Your task to perform on an android device: Search for vegetarian restaurants on Maps Image 0: 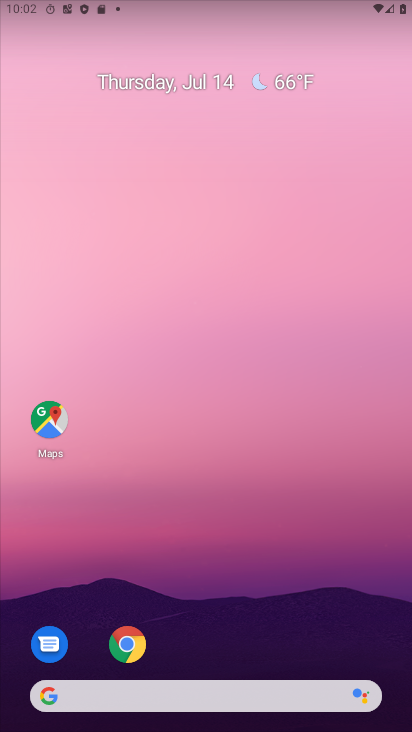
Step 0: drag from (239, 493) to (192, 165)
Your task to perform on an android device: Search for vegetarian restaurants on Maps Image 1: 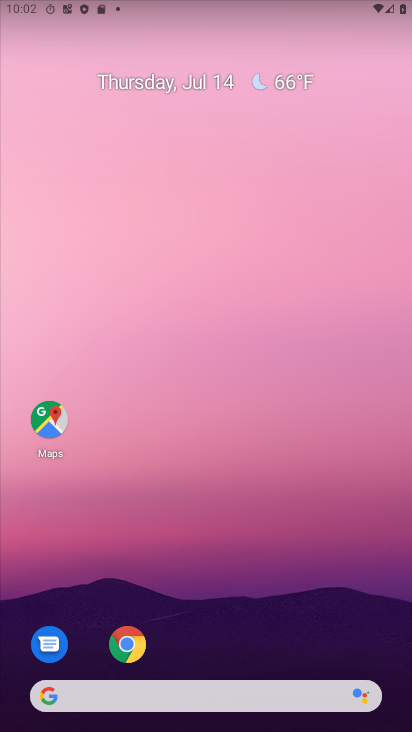
Step 1: drag from (222, 507) to (144, 15)
Your task to perform on an android device: Search for vegetarian restaurants on Maps Image 2: 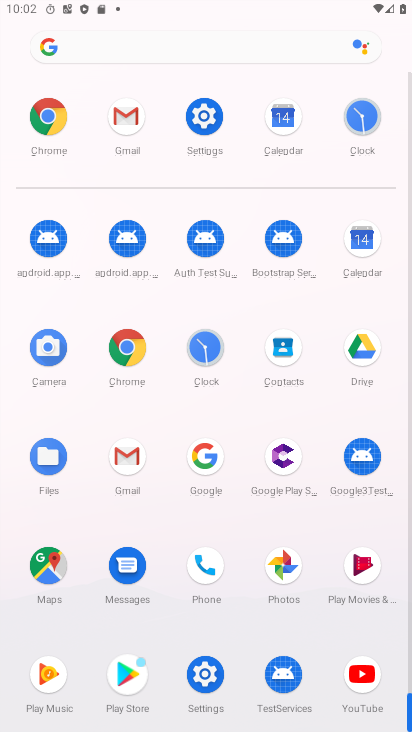
Step 2: click (45, 572)
Your task to perform on an android device: Search for vegetarian restaurants on Maps Image 3: 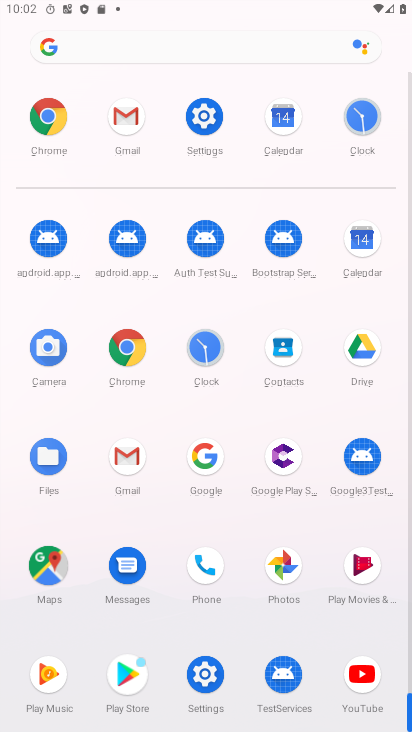
Step 3: click (50, 585)
Your task to perform on an android device: Search for vegetarian restaurants on Maps Image 4: 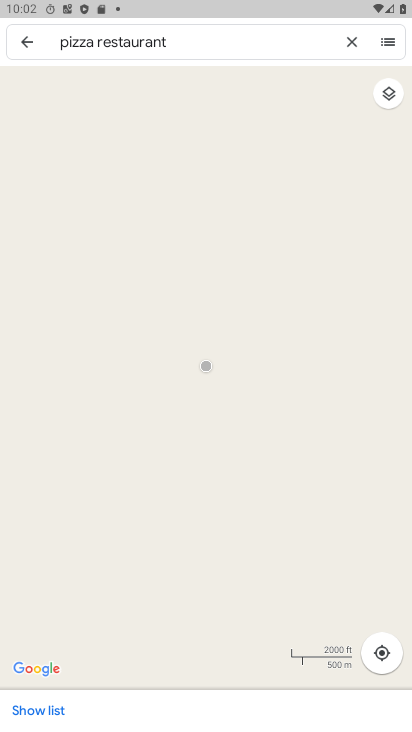
Step 4: click (351, 43)
Your task to perform on an android device: Search for vegetarian restaurants on Maps Image 5: 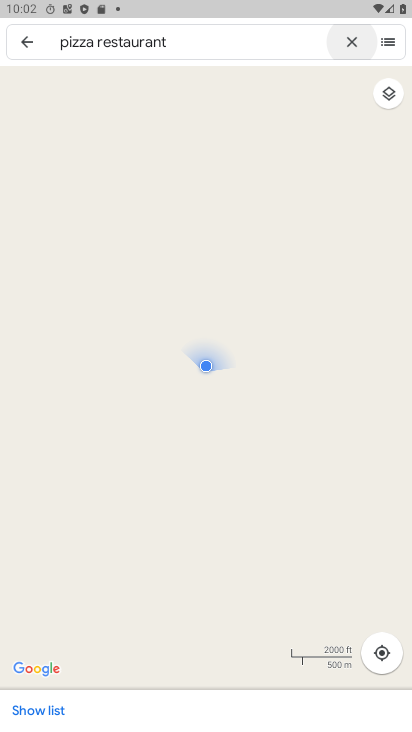
Step 5: click (351, 43)
Your task to perform on an android device: Search for vegetarian restaurants on Maps Image 6: 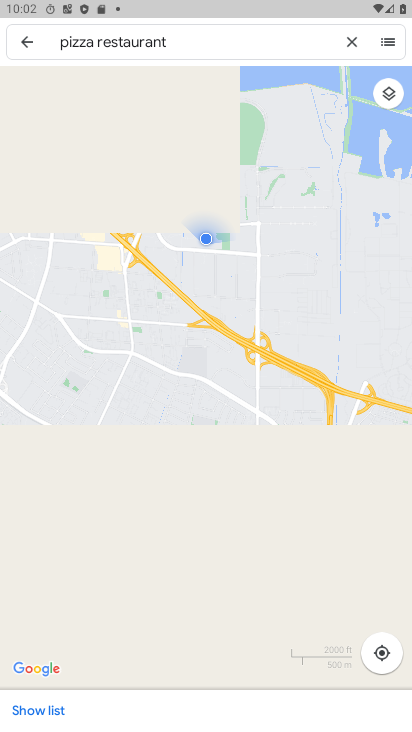
Step 6: click (350, 46)
Your task to perform on an android device: Search for vegetarian restaurants on Maps Image 7: 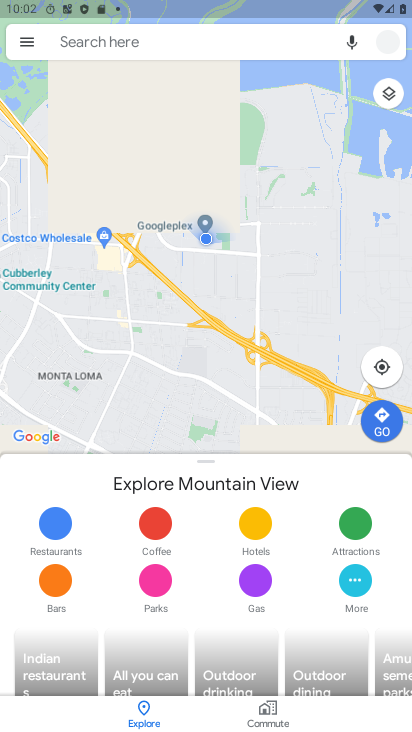
Step 7: click (115, 41)
Your task to perform on an android device: Search for vegetarian restaurants on Maps Image 8: 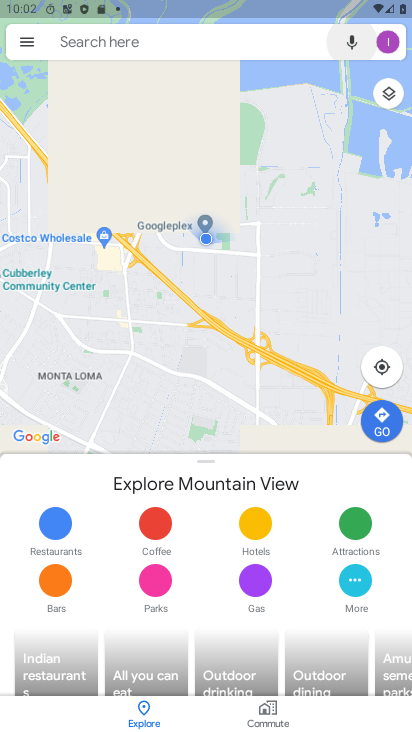
Step 8: click (112, 41)
Your task to perform on an android device: Search for vegetarian restaurants on Maps Image 9: 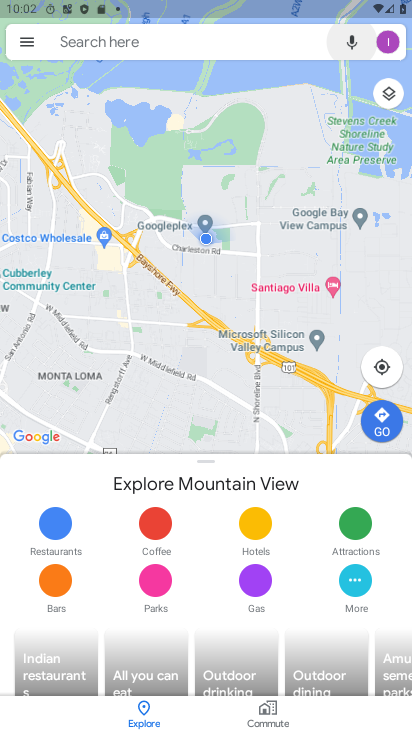
Step 9: click (110, 42)
Your task to perform on an android device: Search for vegetarian restaurants on Maps Image 10: 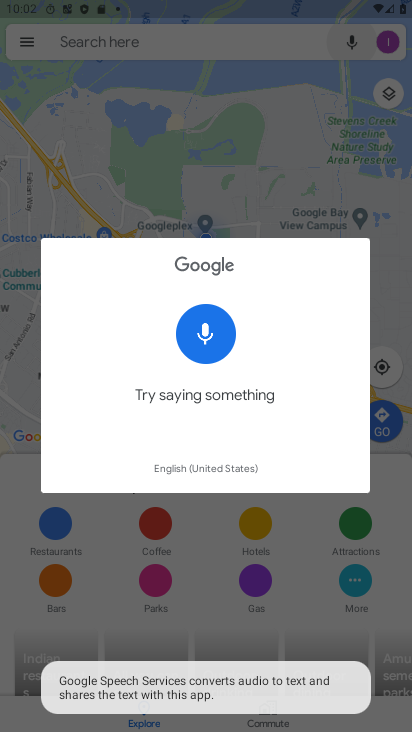
Step 10: click (141, 40)
Your task to perform on an android device: Search for vegetarian restaurants on Maps Image 11: 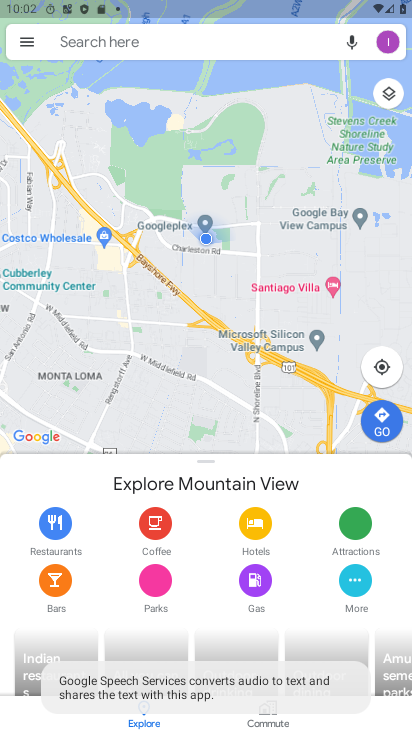
Step 11: click (224, 175)
Your task to perform on an android device: Search for vegetarian restaurants on Maps Image 12: 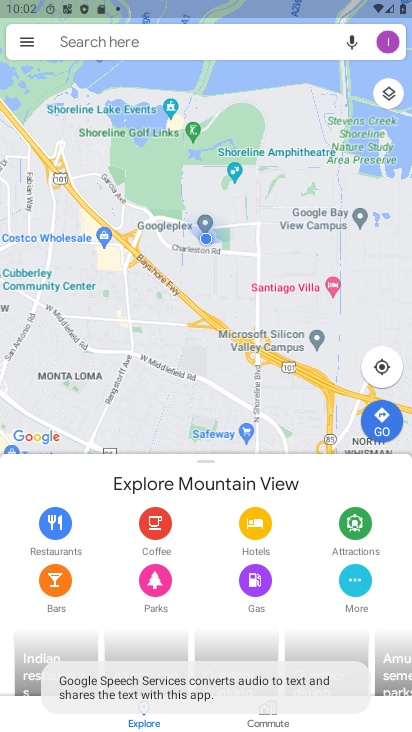
Step 12: click (107, 31)
Your task to perform on an android device: Search for vegetarian restaurants on Maps Image 13: 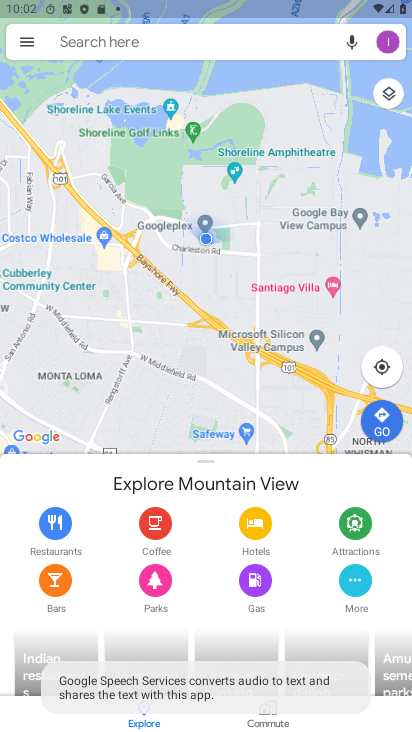
Step 13: click (107, 39)
Your task to perform on an android device: Search for vegetarian restaurants on Maps Image 14: 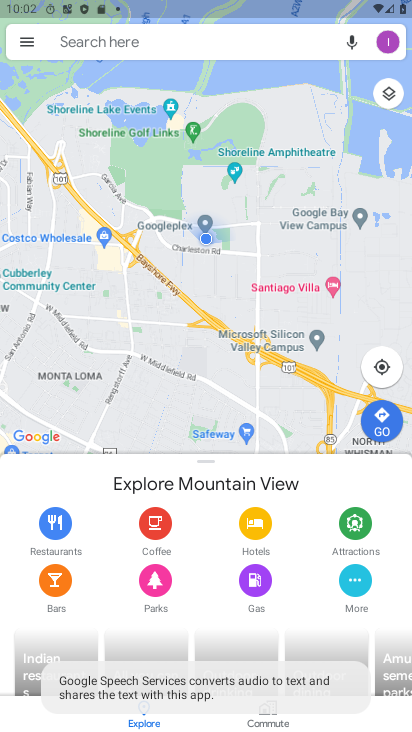
Step 14: click (107, 40)
Your task to perform on an android device: Search for vegetarian restaurants on Maps Image 15: 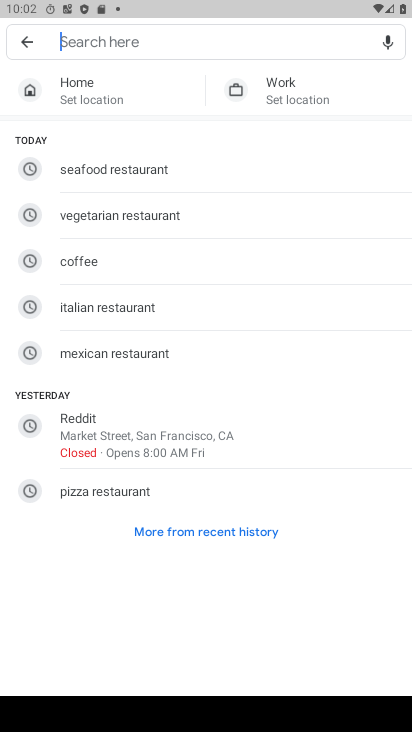
Step 15: click (93, 214)
Your task to perform on an android device: Search for vegetarian restaurants on Maps Image 16: 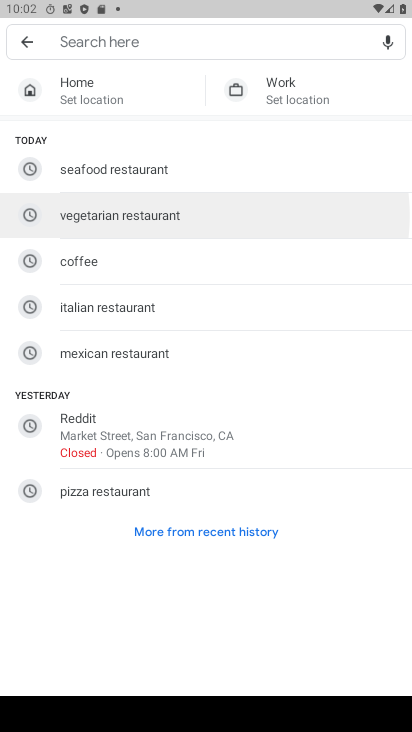
Step 16: click (93, 214)
Your task to perform on an android device: Search for vegetarian restaurants on Maps Image 17: 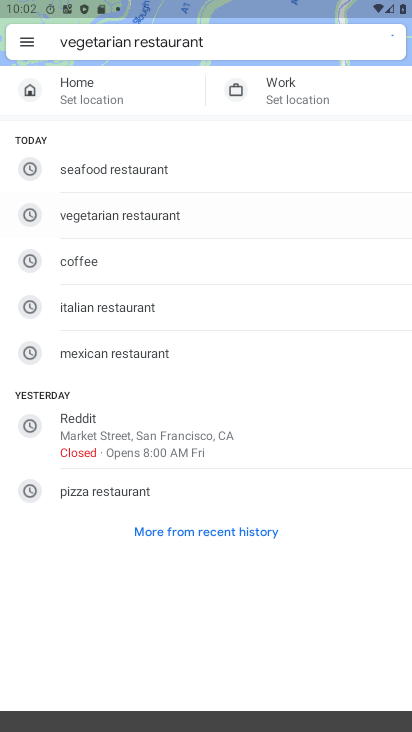
Step 17: click (93, 213)
Your task to perform on an android device: Search for vegetarian restaurants on Maps Image 18: 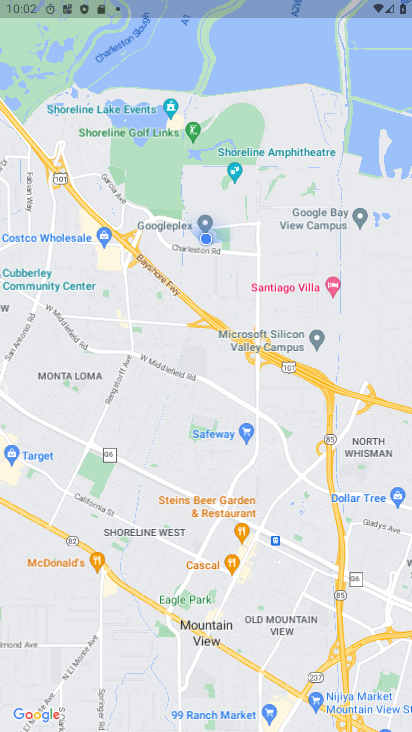
Step 18: task complete